Your task to perform on an android device: see tabs open on other devices in the chrome app Image 0: 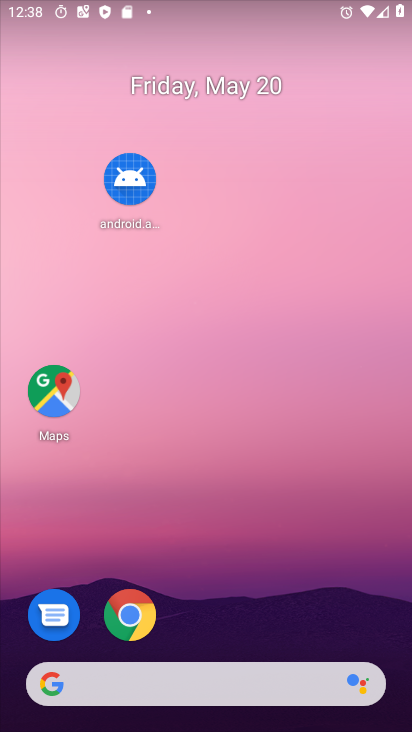
Step 0: click (131, 605)
Your task to perform on an android device: see tabs open on other devices in the chrome app Image 1: 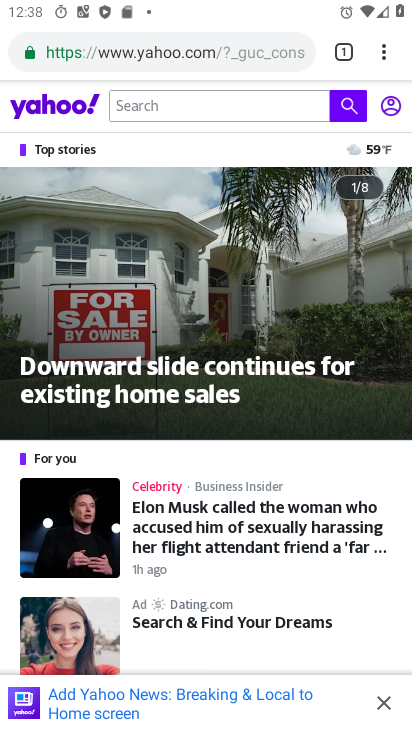
Step 1: click (391, 52)
Your task to perform on an android device: see tabs open on other devices in the chrome app Image 2: 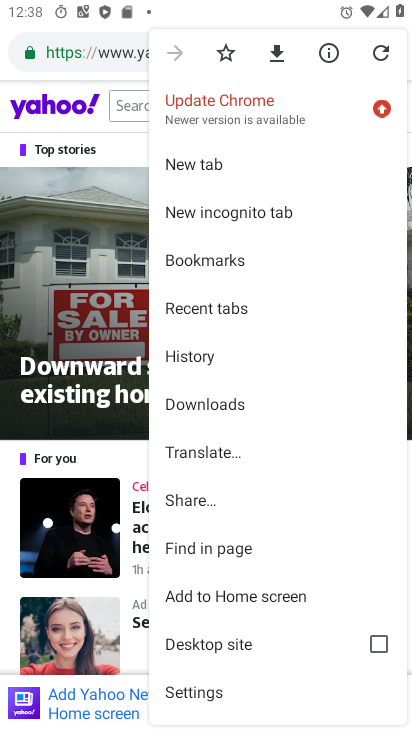
Step 2: click (230, 312)
Your task to perform on an android device: see tabs open on other devices in the chrome app Image 3: 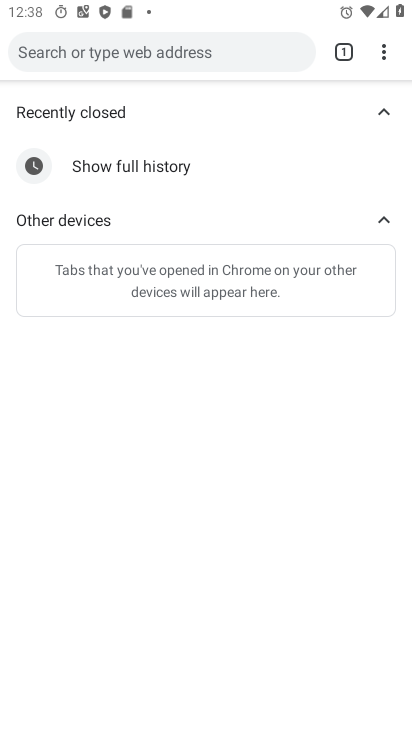
Step 3: task complete